Your task to perform on an android device: change alarm snooze length Image 0: 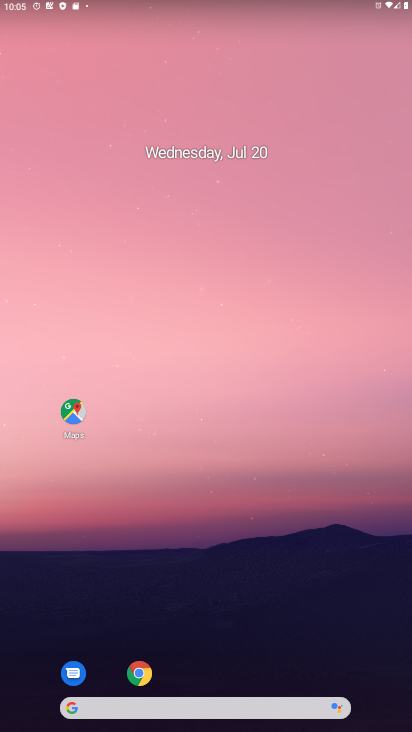
Step 0: drag from (208, 730) to (208, 255)
Your task to perform on an android device: change alarm snooze length Image 1: 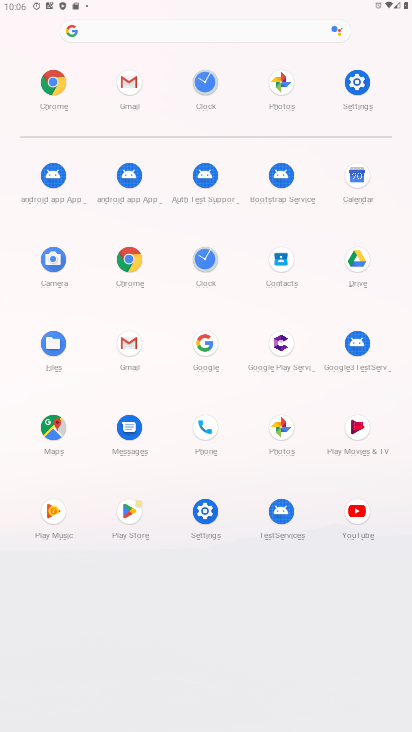
Step 1: click (202, 269)
Your task to perform on an android device: change alarm snooze length Image 2: 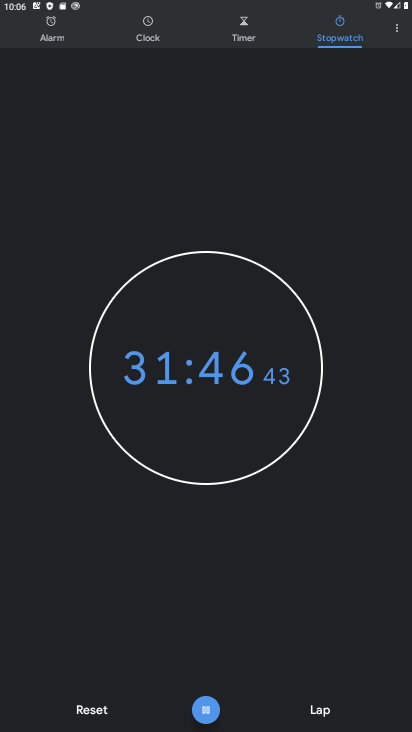
Step 2: click (401, 34)
Your task to perform on an android device: change alarm snooze length Image 3: 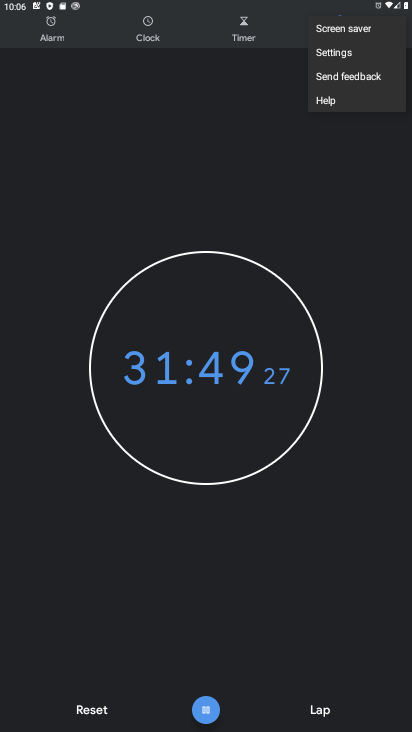
Step 3: click (330, 50)
Your task to perform on an android device: change alarm snooze length Image 4: 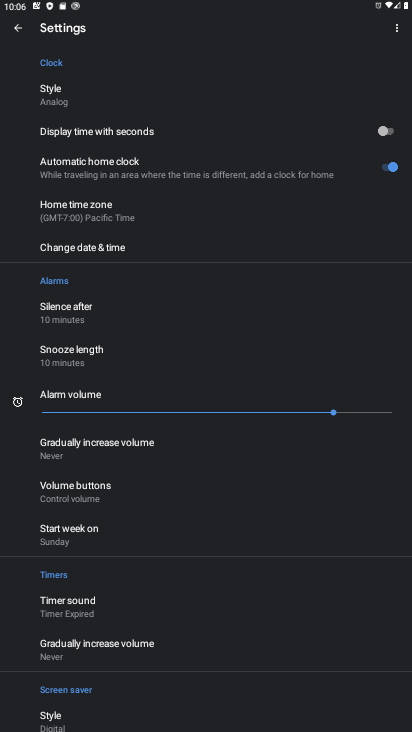
Step 4: click (81, 350)
Your task to perform on an android device: change alarm snooze length Image 5: 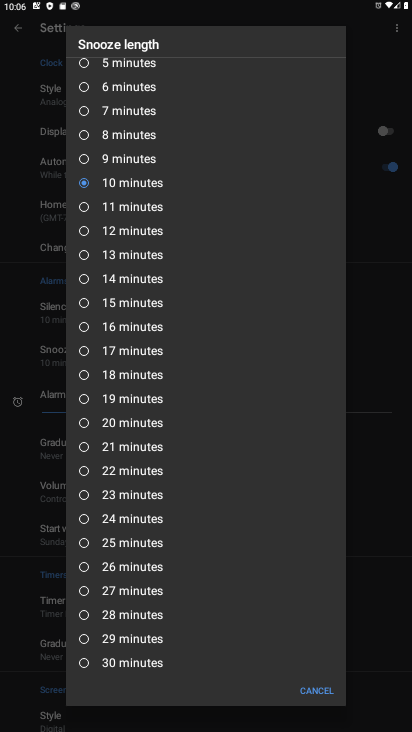
Step 5: click (84, 495)
Your task to perform on an android device: change alarm snooze length Image 6: 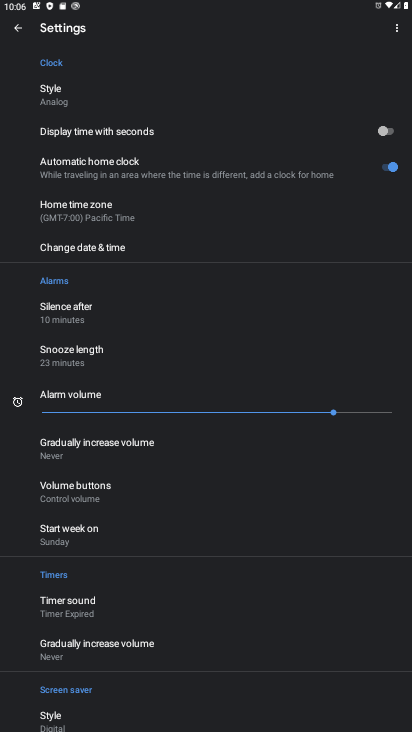
Step 6: task complete